Your task to perform on an android device: search for starred emails in the gmail app Image 0: 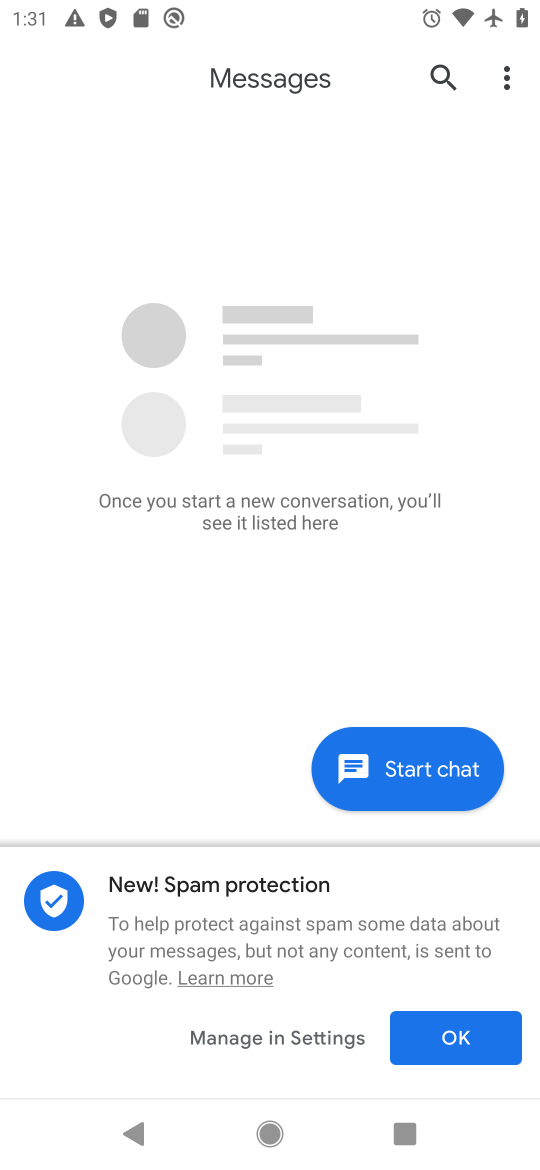
Step 0: press home button
Your task to perform on an android device: search for starred emails in the gmail app Image 1: 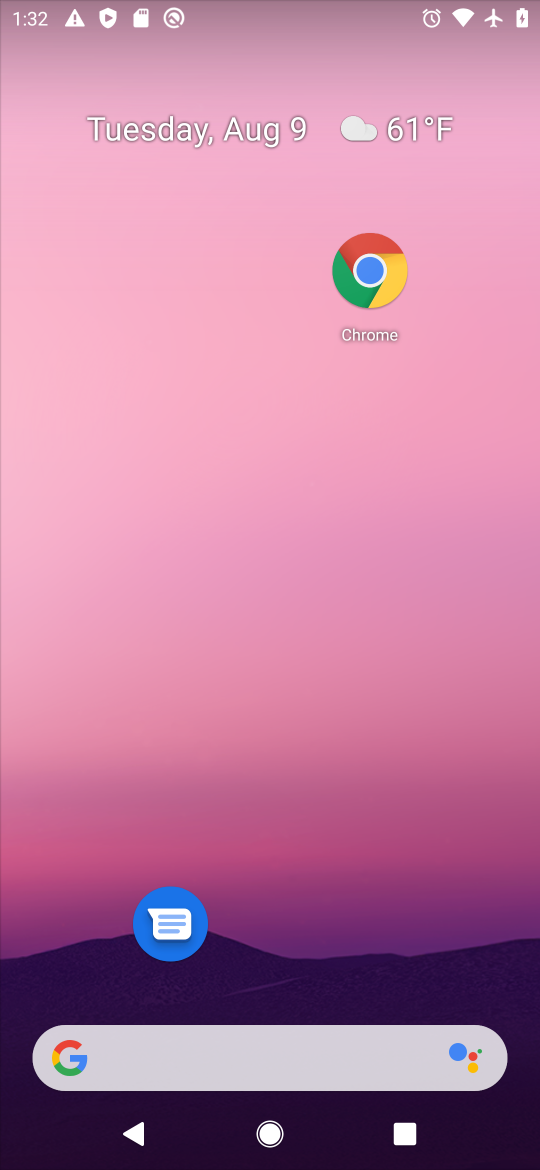
Step 1: drag from (336, 1003) to (123, 65)
Your task to perform on an android device: search for starred emails in the gmail app Image 2: 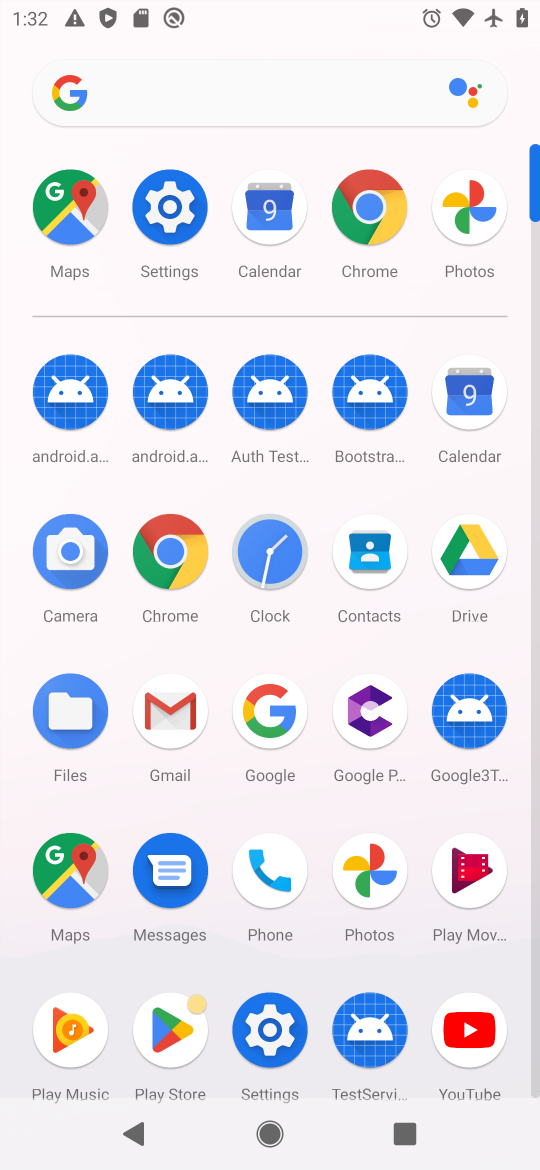
Step 2: click (166, 719)
Your task to perform on an android device: search for starred emails in the gmail app Image 3: 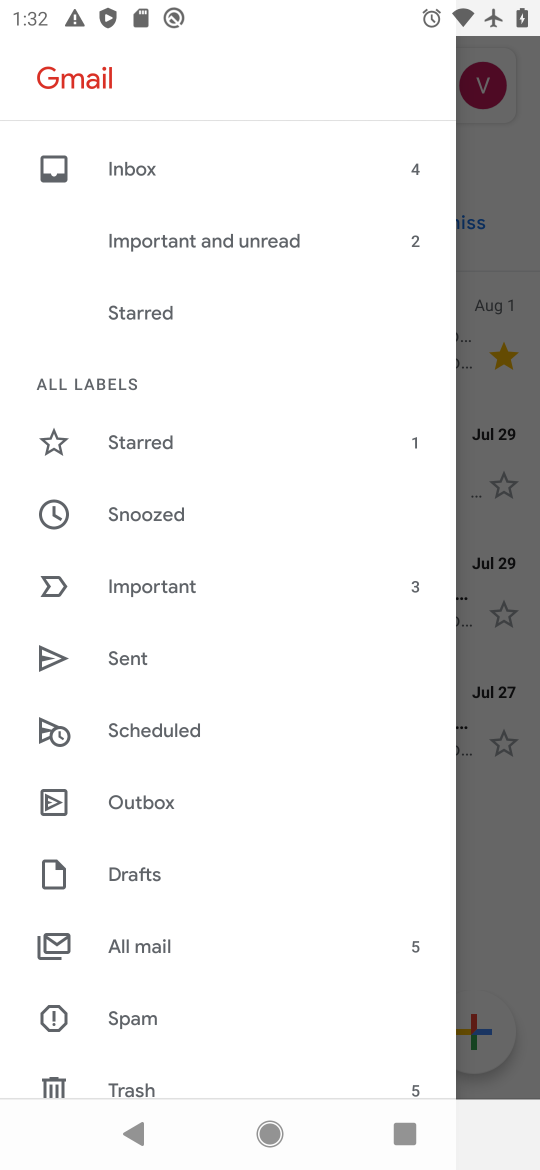
Step 3: task complete